Your task to perform on an android device: Is it going to rain today? Image 0: 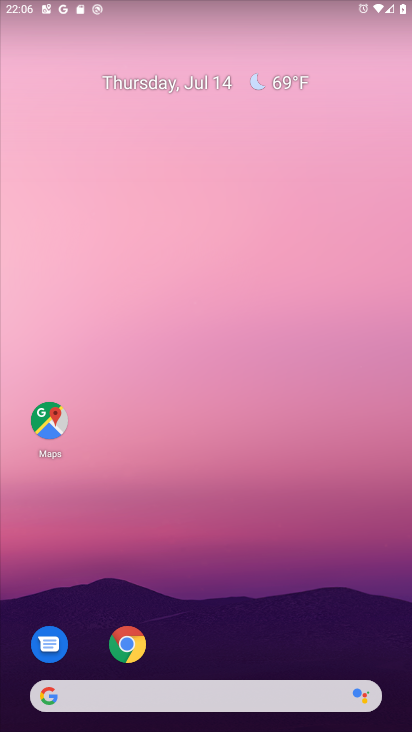
Step 0: click (145, 698)
Your task to perform on an android device: Is it going to rain today? Image 1: 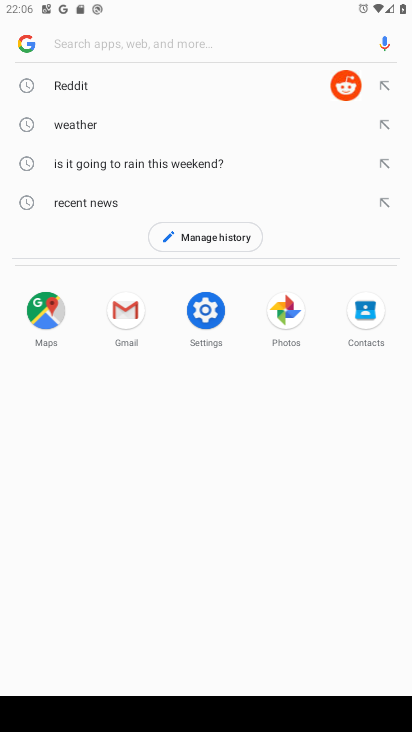
Step 1: click (126, 130)
Your task to perform on an android device: Is it going to rain today? Image 2: 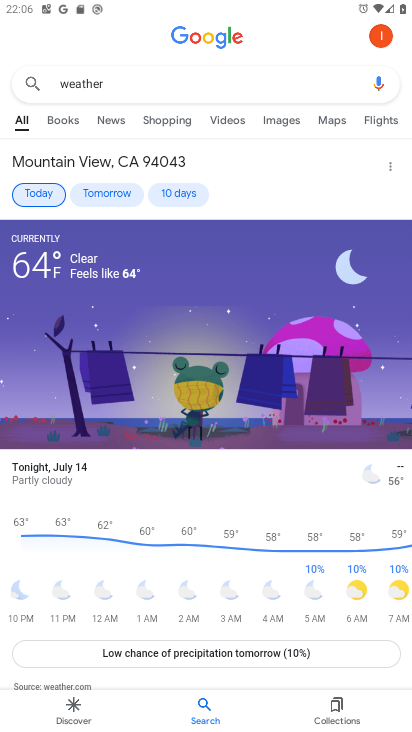
Step 2: task complete